Your task to perform on an android device: toggle data saver in the chrome app Image 0: 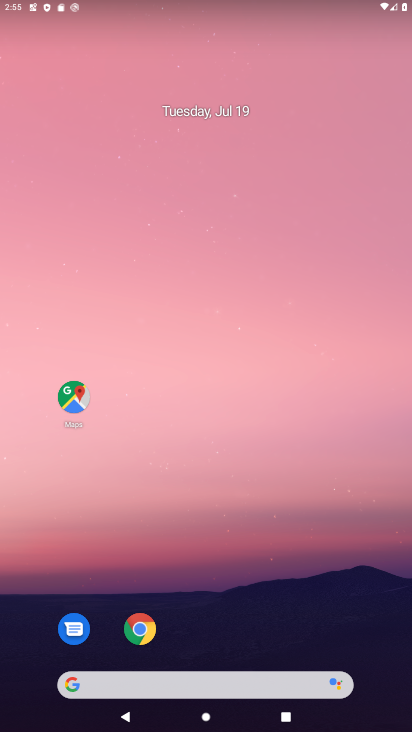
Step 0: click (134, 637)
Your task to perform on an android device: toggle data saver in the chrome app Image 1: 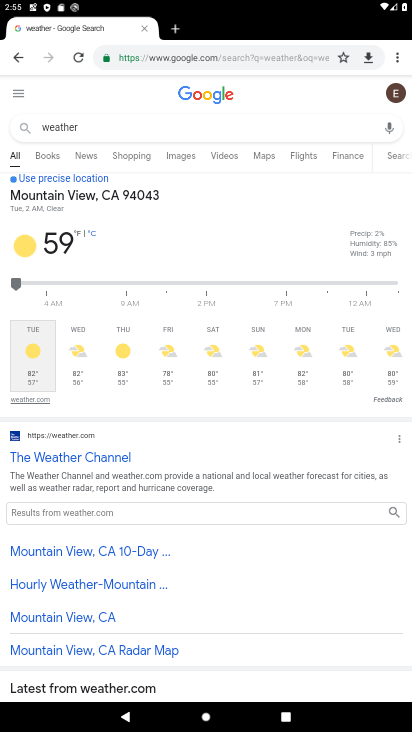
Step 1: drag from (398, 63) to (330, 386)
Your task to perform on an android device: toggle data saver in the chrome app Image 2: 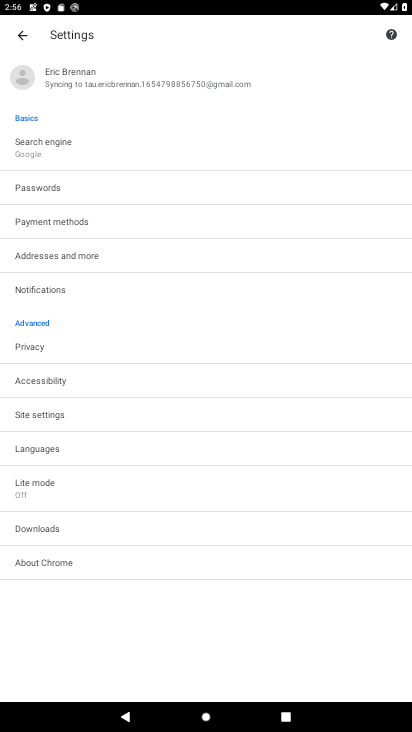
Step 2: click (62, 488)
Your task to perform on an android device: toggle data saver in the chrome app Image 3: 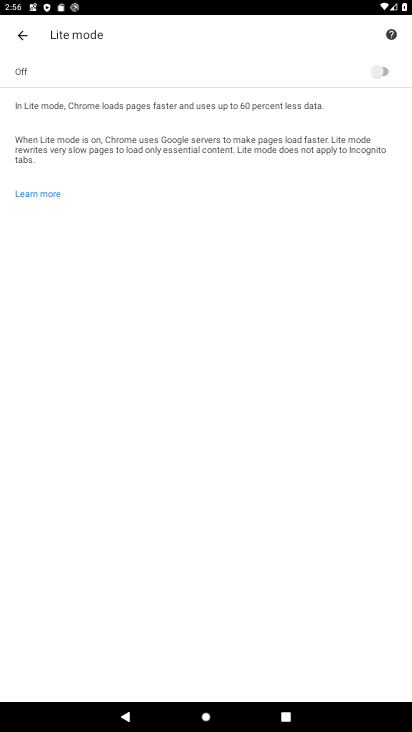
Step 3: click (386, 70)
Your task to perform on an android device: toggle data saver in the chrome app Image 4: 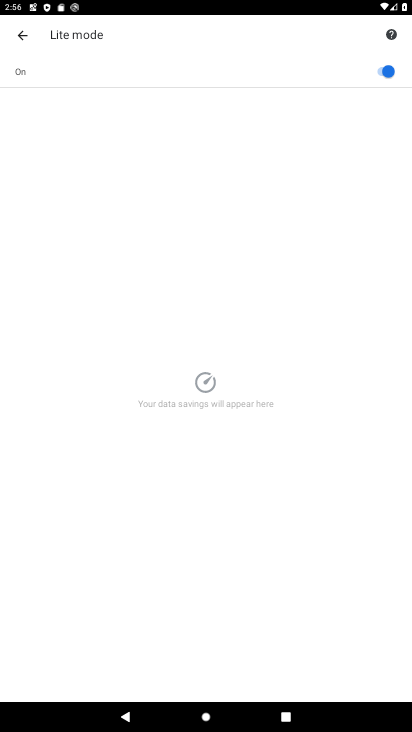
Step 4: task complete